Your task to perform on an android device: empty trash in the gmail app Image 0: 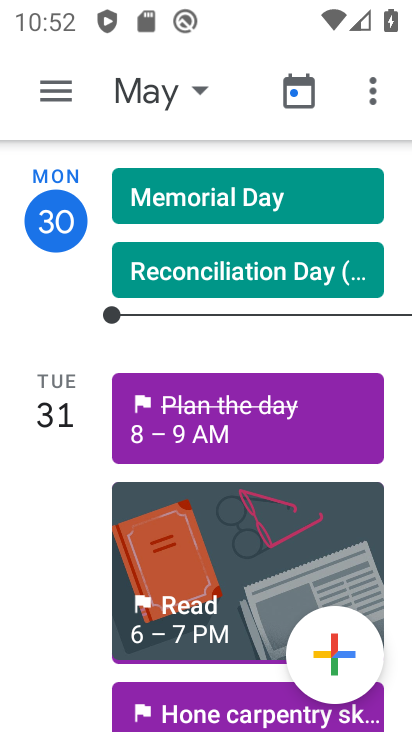
Step 0: press back button
Your task to perform on an android device: empty trash in the gmail app Image 1: 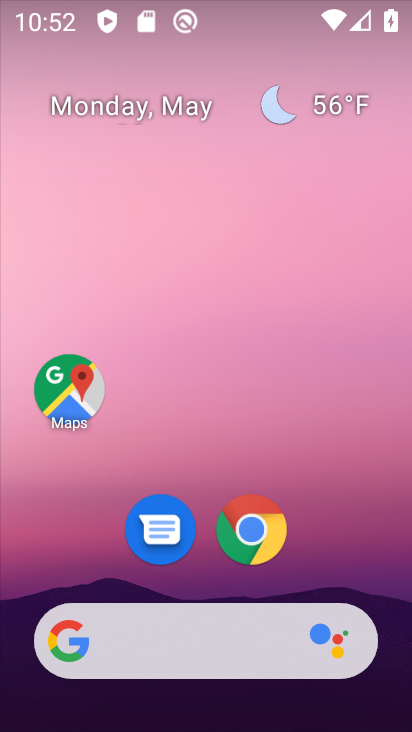
Step 1: drag from (342, 562) to (245, 8)
Your task to perform on an android device: empty trash in the gmail app Image 2: 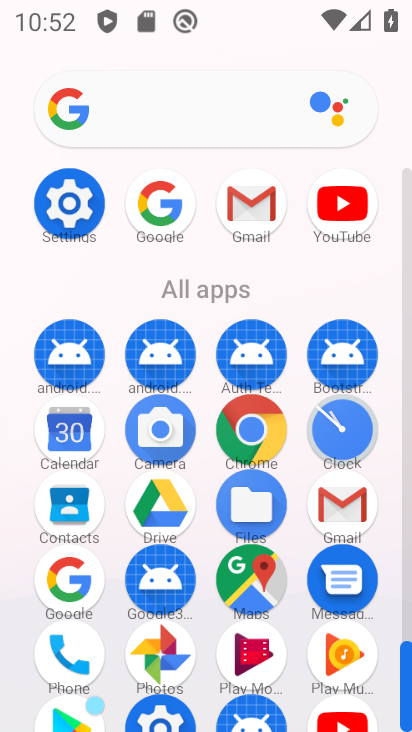
Step 2: click (246, 203)
Your task to perform on an android device: empty trash in the gmail app Image 3: 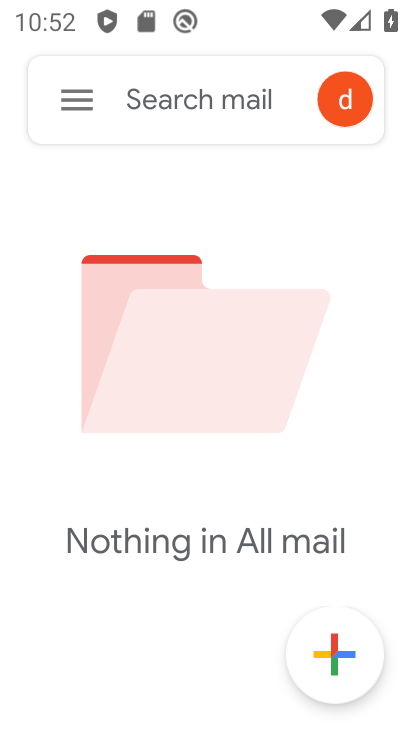
Step 3: click (86, 99)
Your task to perform on an android device: empty trash in the gmail app Image 4: 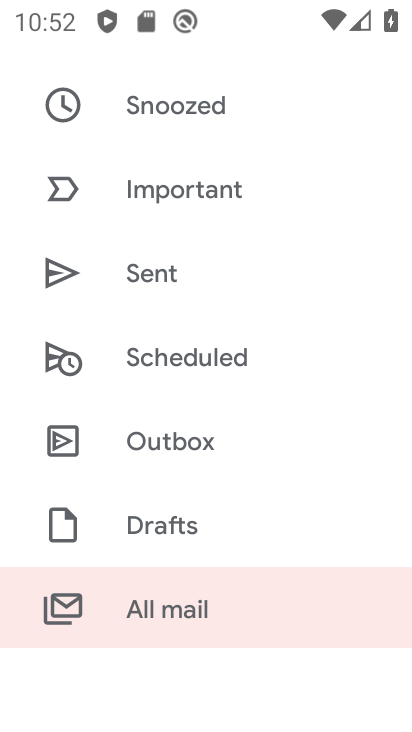
Step 4: drag from (215, 510) to (272, 351)
Your task to perform on an android device: empty trash in the gmail app Image 5: 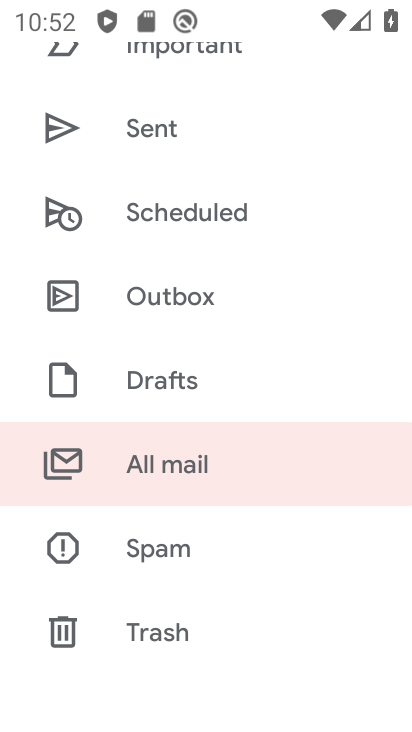
Step 5: drag from (207, 535) to (260, 333)
Your task to perform on an android device: empty trash in the gmail app Image 6: 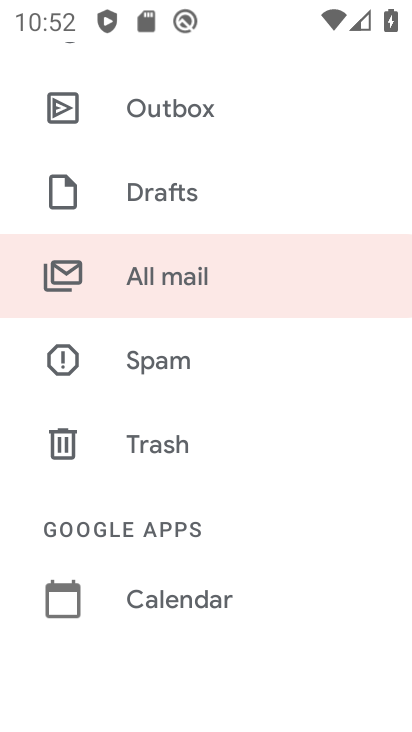
Step 6: click (151, 439)
Your task to perform on an android device: empty trash in the gmail app Image 7: 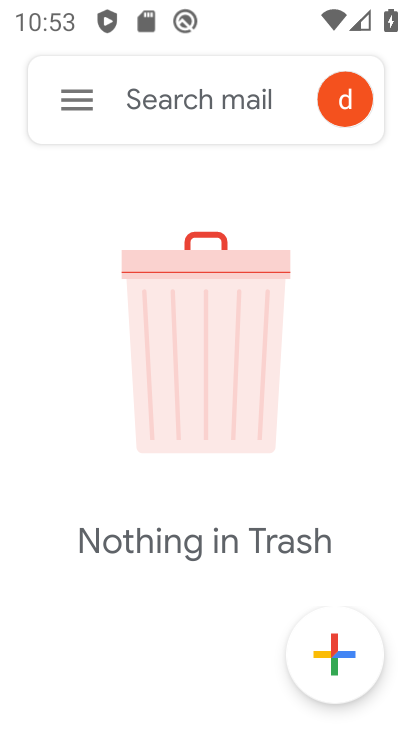
Step 7: task complete